Your task to perform on an android device: turn on the 24-hour format for clock Image 0: 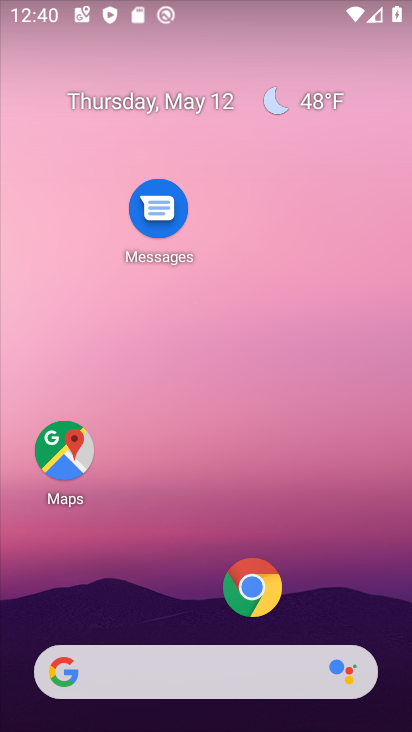
Step 0: drag from (211, 639) to (144, 110)
Your task to perform on an android device: turn on the 24-hour format for clock Image 1: 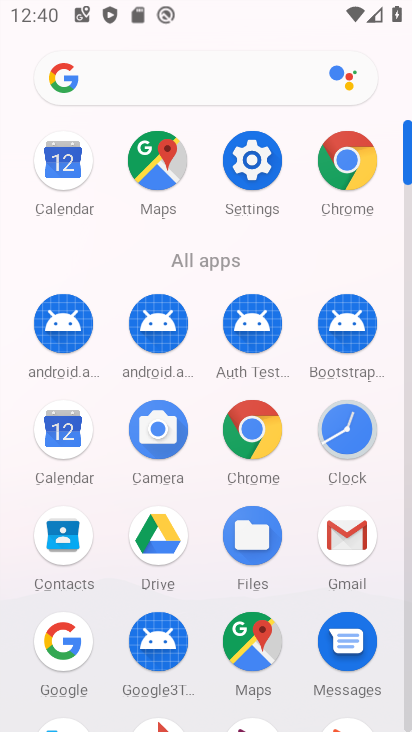
Step 1: click (341, 434)
Your task to perform on an android device: turn on the 24-hour format for clock Image 2: 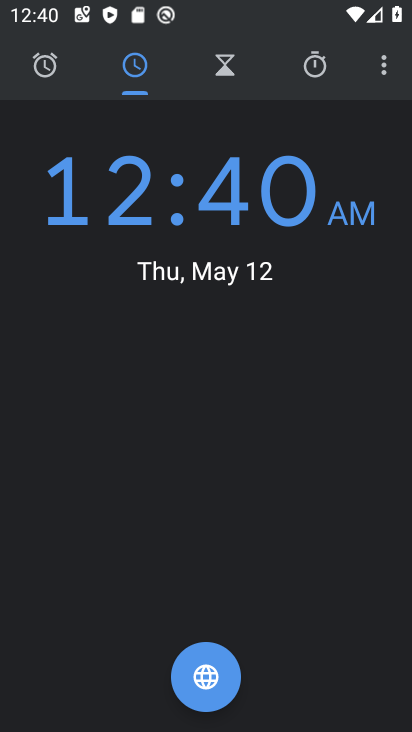
Step 2: click (366, 60)
Your task to perform on an android device: turn on the 24-hour format for clock Image 3: 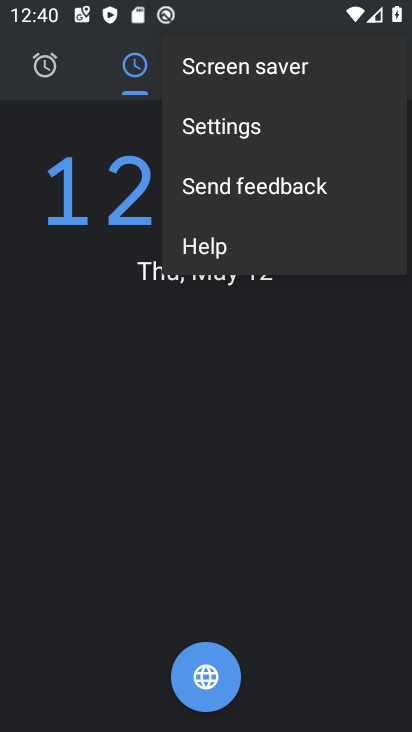
Step 3: click (223, 133)
Your task to perform on an android device: turn on the 24-hour format for clock Image 4: 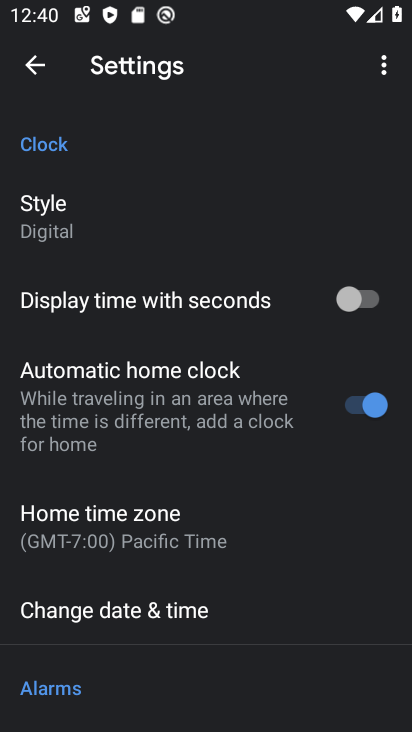
Step 4: click (154, 610)
Your task to perform on an android device: turn on the 24-hour format for clock Image 5: 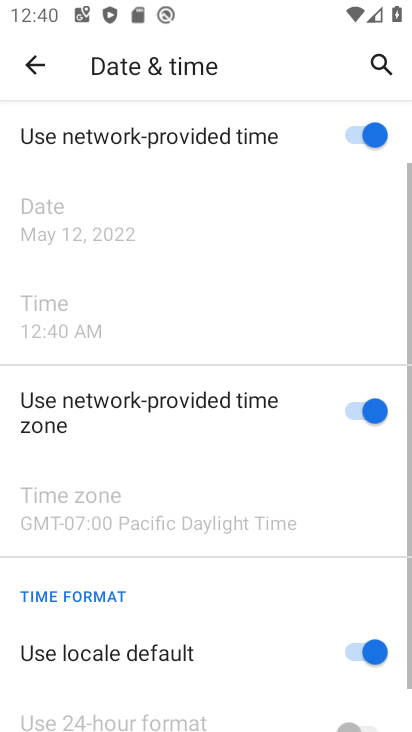
Step 5: drag from (163, 613) to (98, 252)
Your task to perform on an android device: turn on the 24-hour format for clock Image 6: 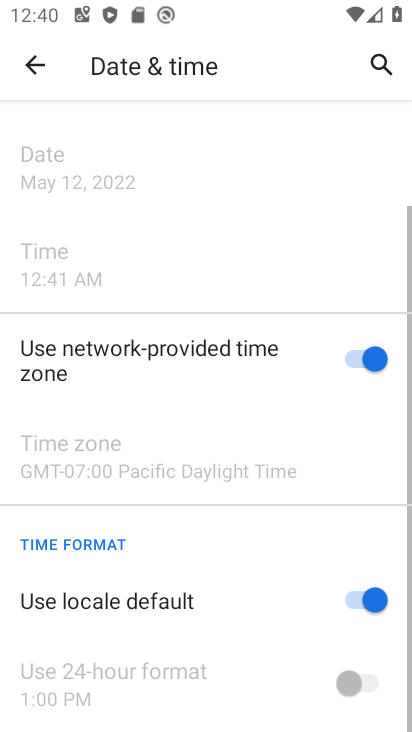
Step 6: click (358, 596)
Your task to perform on an android device: turn on the 24-hour format for clock Image 7: 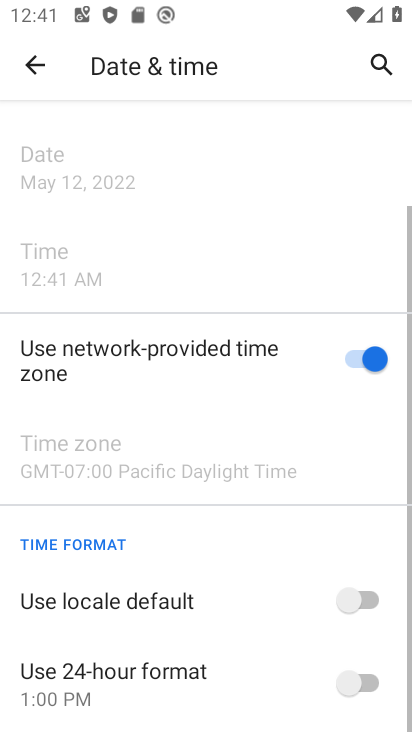
Step 7: click (358, 694)
Your task to perform on an android device: turn on the 24-hour format for clock Image 8: 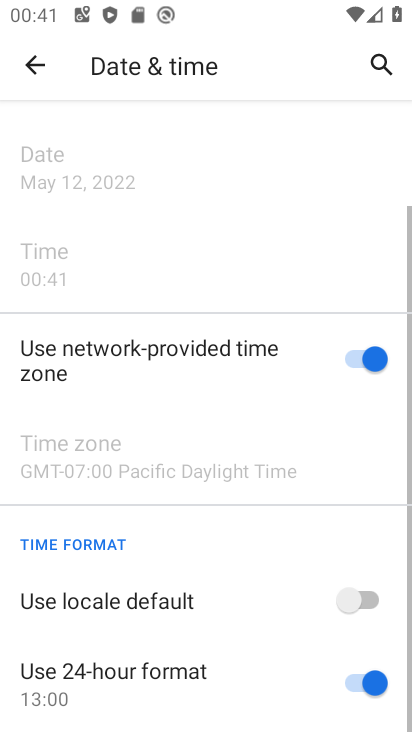
Step 8: task complete